Your task to perform on an android device: Open calendar and show me the second week of next month Image 0: 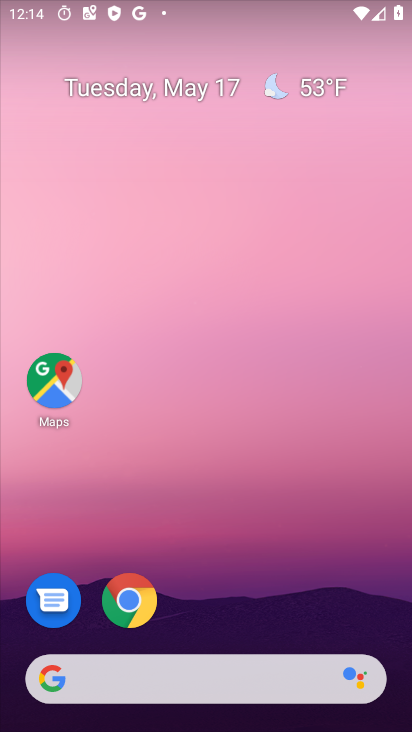
Step 0: drag from (272, 526) to (296, 43)
Your task to perform on an android device: Open calendar and show me the second week of next month Image 1: 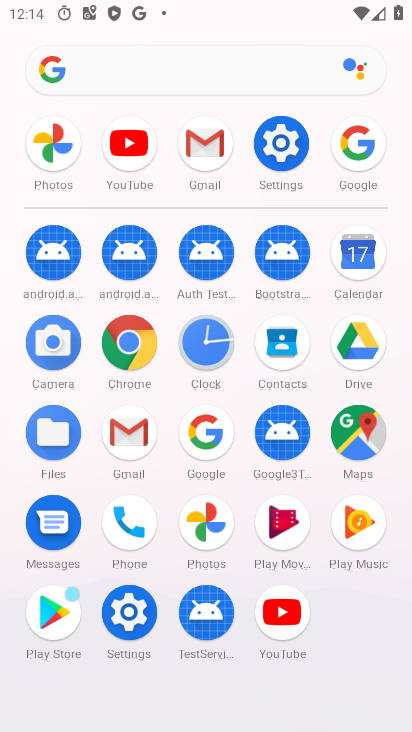
Step 1: click (359, 255)
Your task to perform on an android device: Open calendar and show me the second week of next month Image 2: 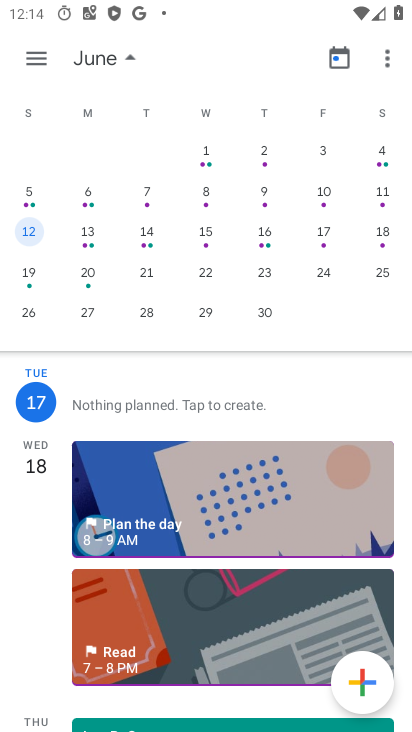
Step 2: click (32, 197)
Your task to perform on an android device: Open calendar and show me the second week of next month Image 3: 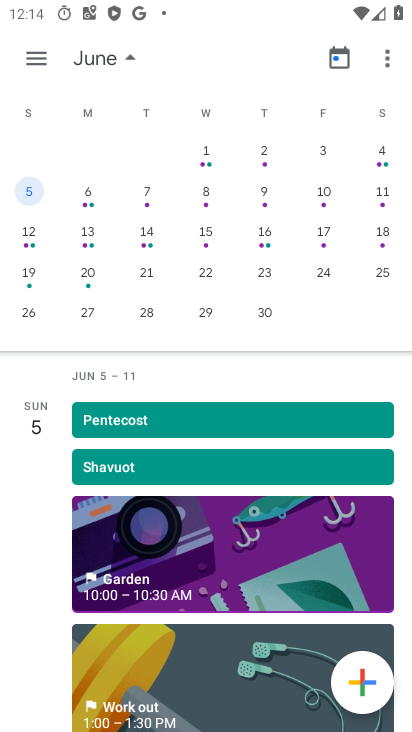
Step 3: task complete